Your task to perform on an android device: turn pop-ups off in chrome Image 0: 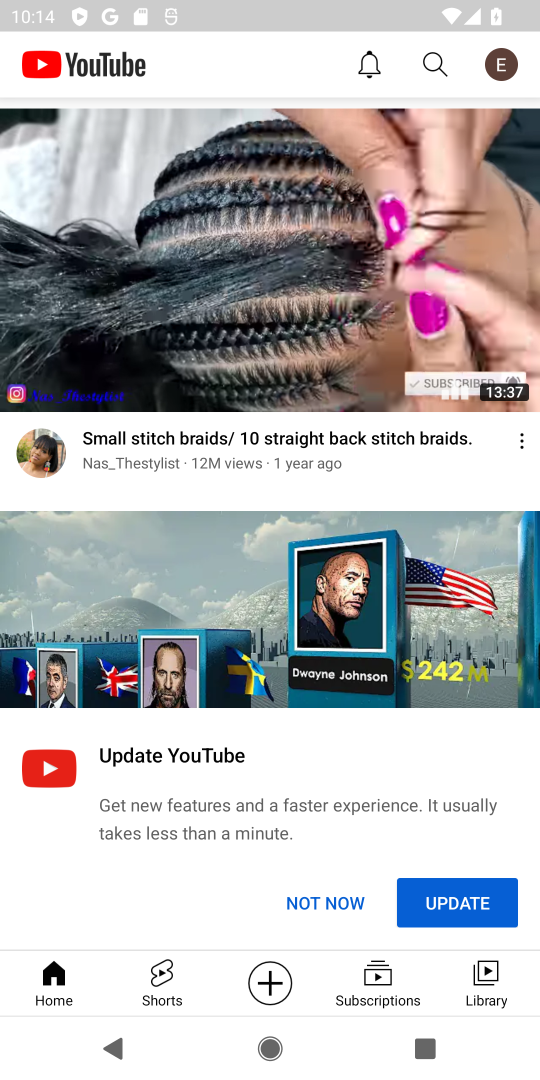
Step 0: press home button
Your task to perform on an android device: turn pop-ups off in chrome Image 1: 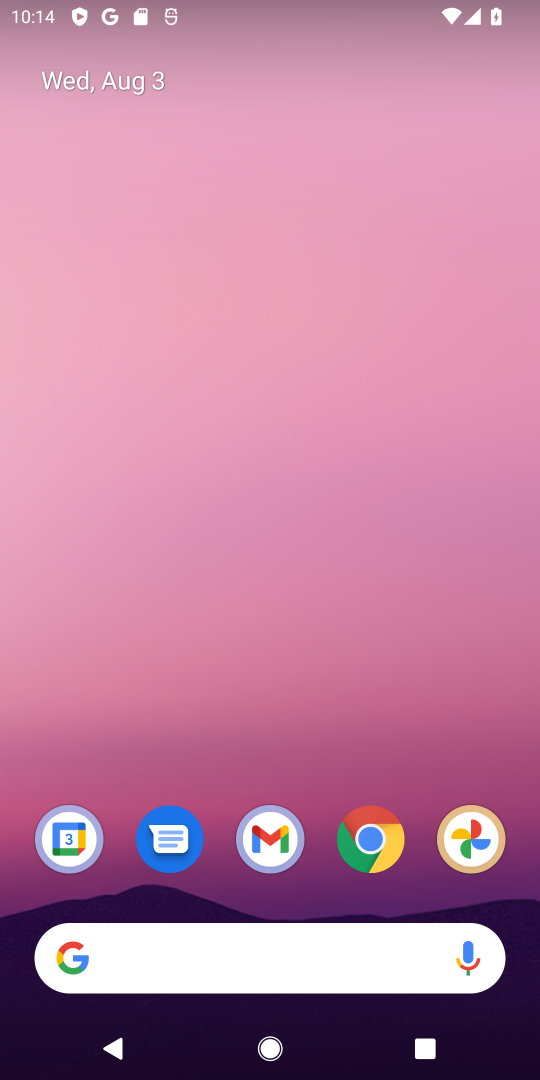
Step 1: click (367, 844)
Your task to perform on an android device: turn pop-ups off in chrome Image 2: 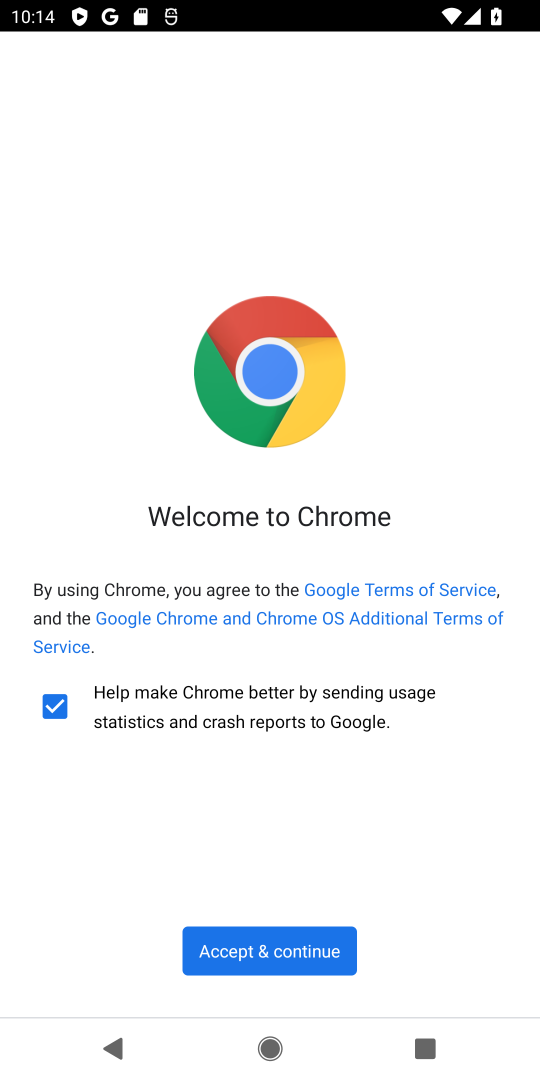
Step 2: click (278, 936)
Your task to perform on an android device: turn pop-ups off in chrome Image 3: 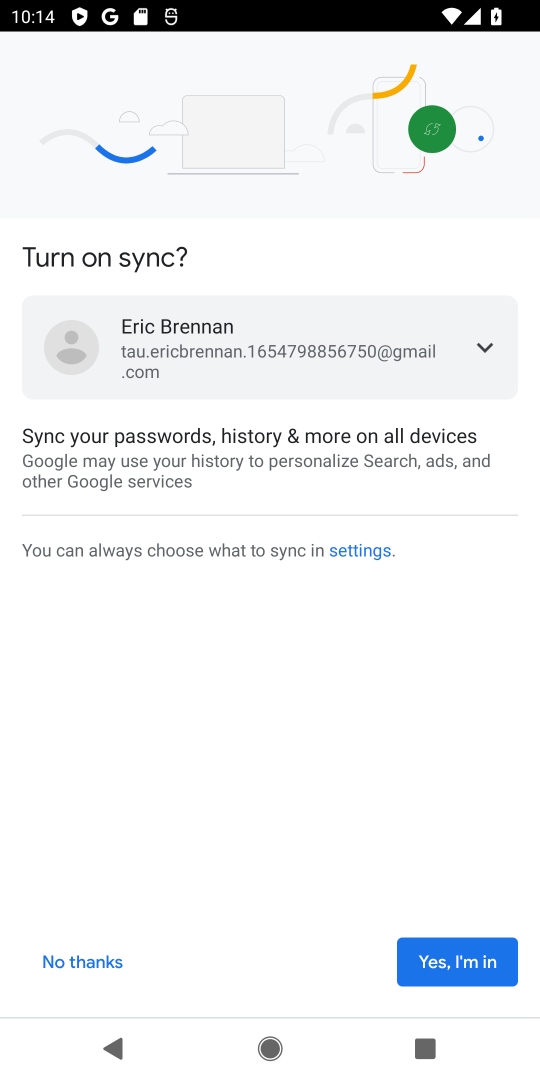
Step 3: click (490, 959)
Your task to perform on an android device: turn pop-ups off in chrome Image 4: 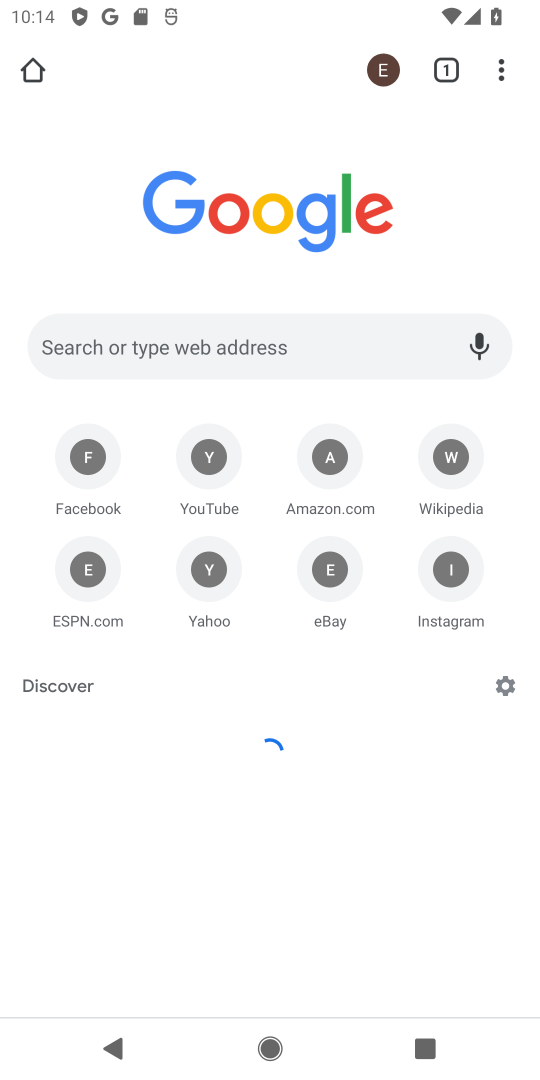
Step 4: click (447, 965)
Your task to perform on an android device: turn pop-ups off in chrome Image 5: 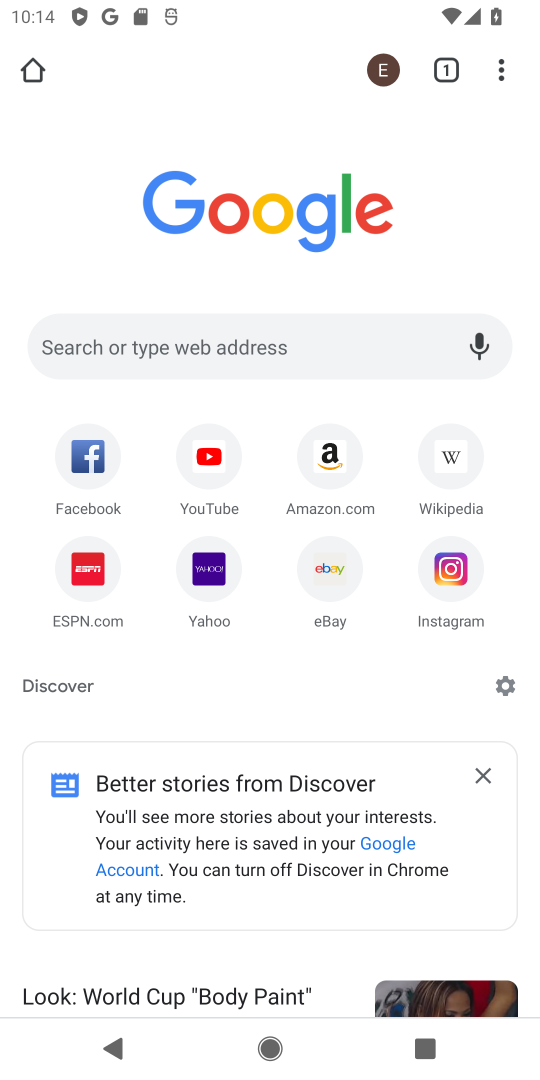
Step 5: click (488, 56)
Your task to perform on an android device: turn pop-ups off in chrome Image 6: 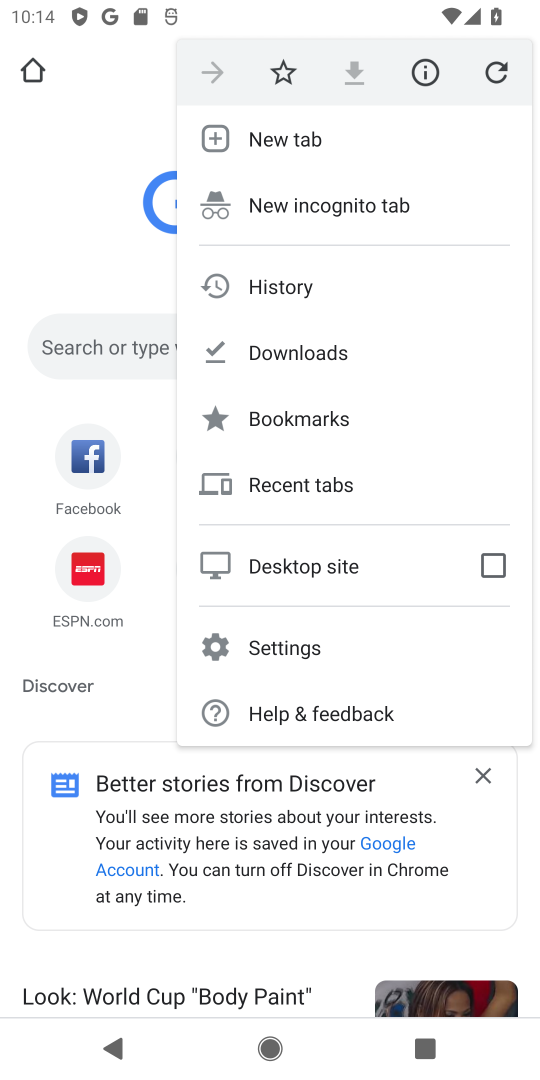
Step 6: click (267, 642)
Your task to perform on an android device: turn pop-ups off in chrome Image 7: 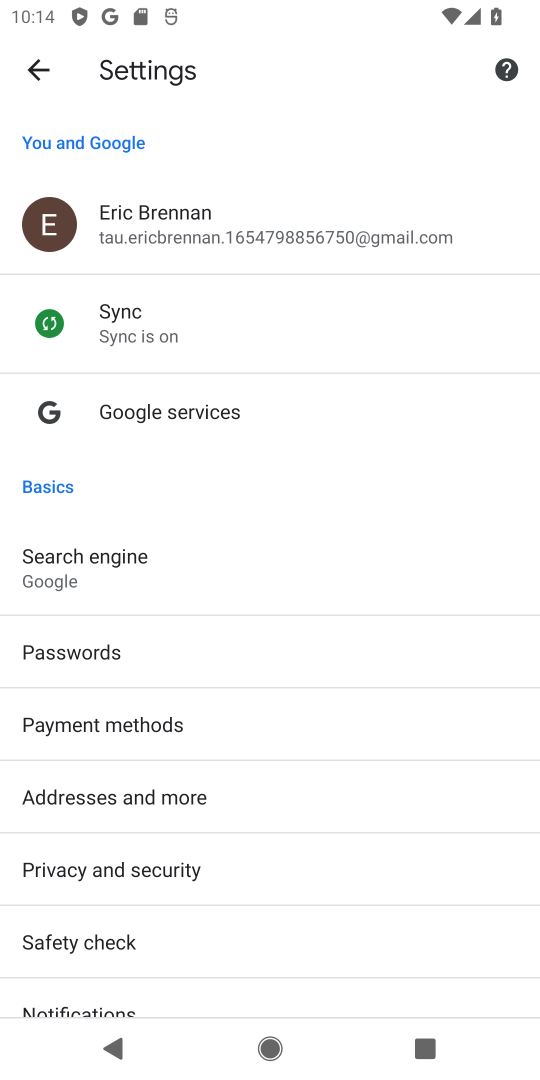
Step 7: drag from (106, 906) to (125, 626)
Your task to perform on an android device: turn pop-ups off in chrome Image 8: 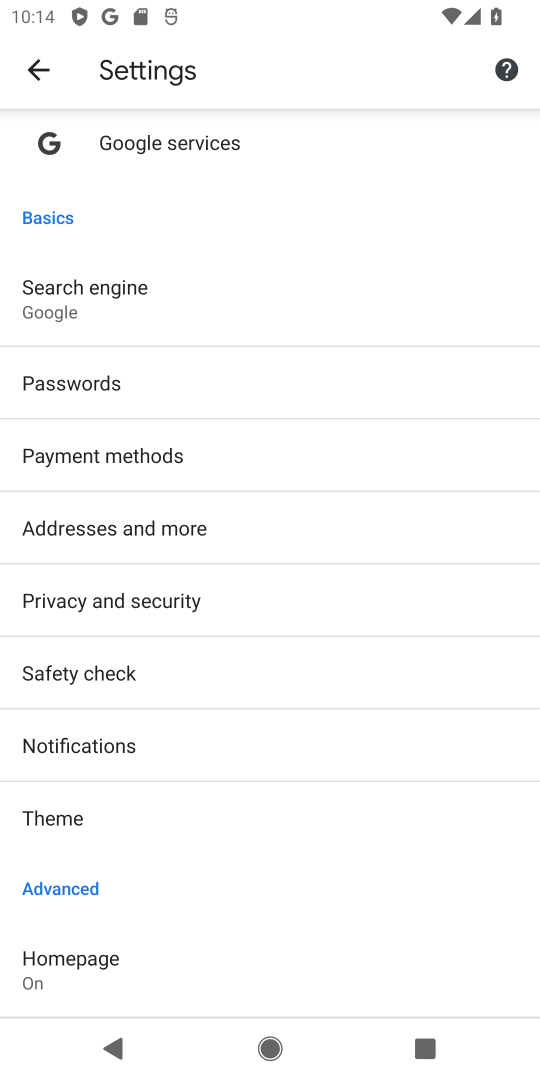
Step 8: drag from (86, 921) to (94, 669)
Your task to perform on an android device: turn pop-ups off in chrome Image 9: 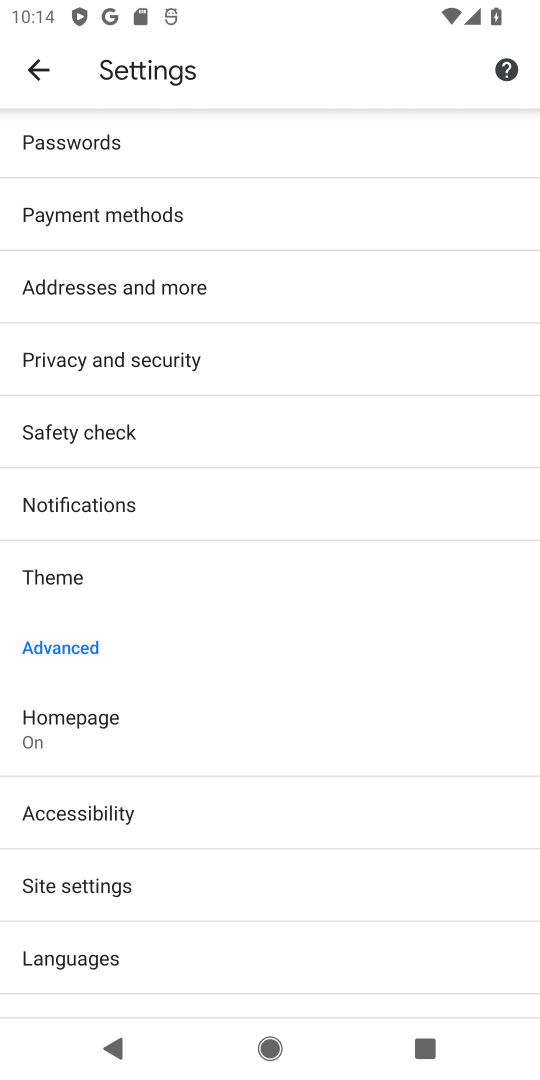
Step 9: click (89, 883)
Your task to perform on an android device: turn pop-ups off in chrome Image 10: 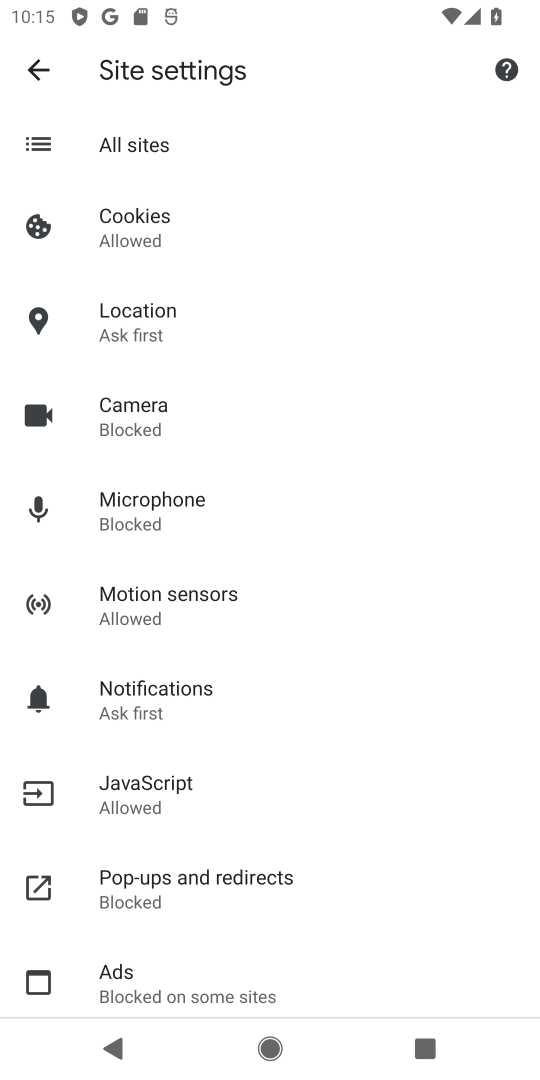
Step 10: click (191, 900)
Your task to perform on an android device: turn pop-ups off in chrome Image 11: 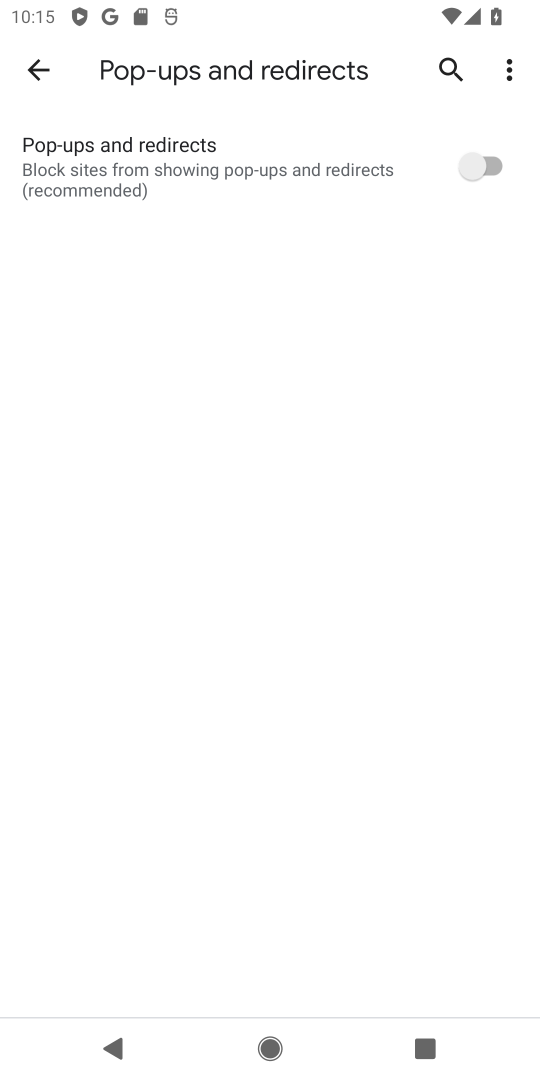
Step 11: click (432, 162)
Your task to perform on an android device: turn pop-ups off in chrome Image 12: 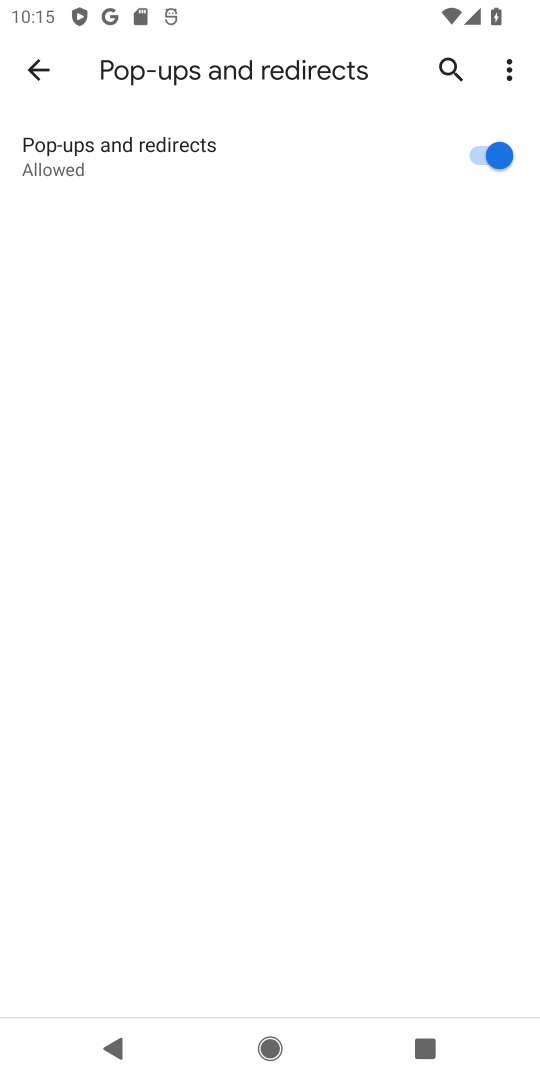
Step 12: task complete